Your task to perform on an android device: Open internet settings Image 0: 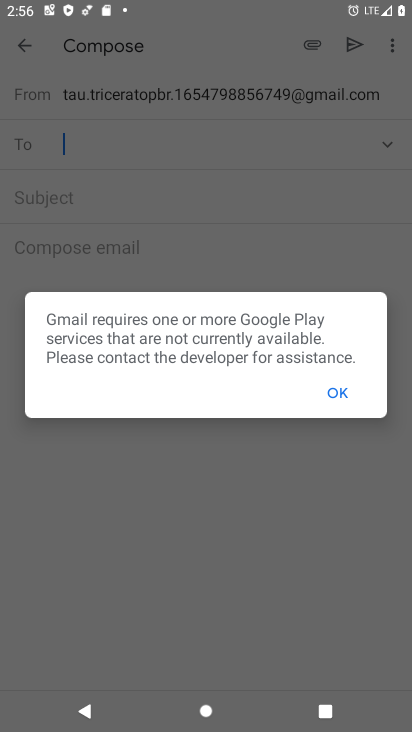
Step 0: click (341, 380)
Your task to perform on an android device: Open internet settings Image 1: 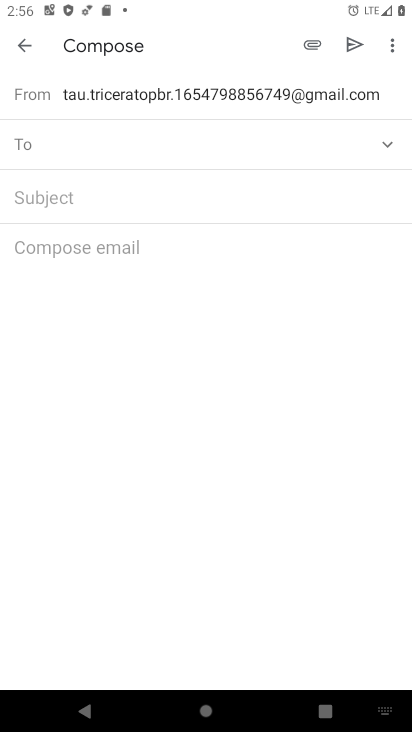
Step 1: press back button
Your task to perform on an android device: Open internet settings Image 2: 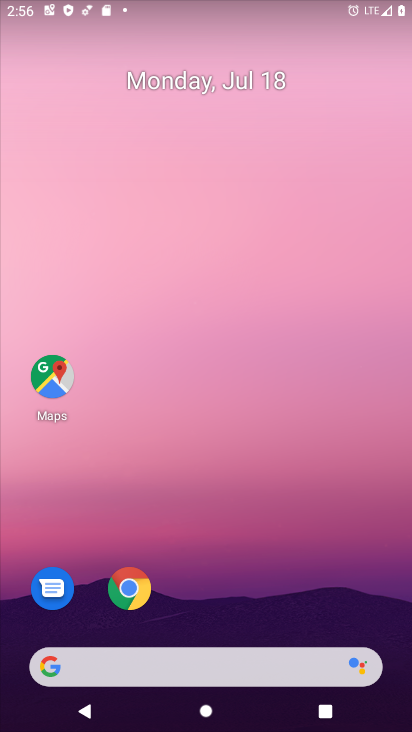
Step 2: drag from (253, 589) to (343, 101)
Your task to perform on an android device: Open internet settings Image 3: 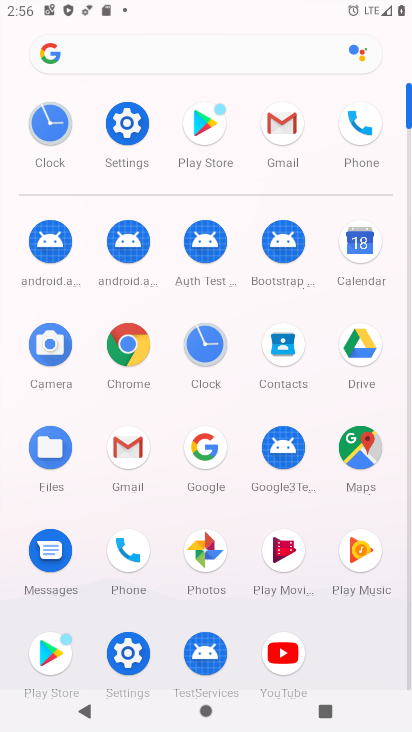
Step 3: click (127, 110)
Your task to perform on an android device: Open internet settings Image 4: 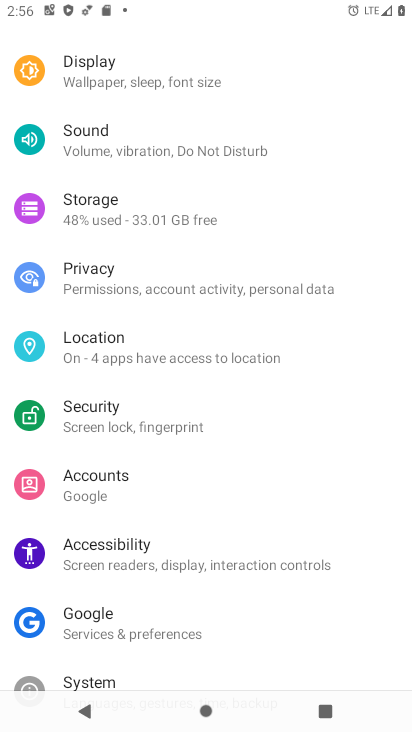
Step 4: drag from (180, 169) to (209, 714)
Your task to perform on an android device: Open internet settings Image 5: 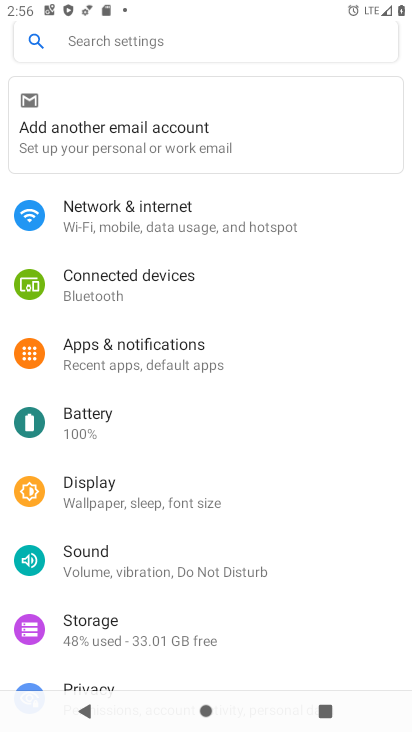
Step 5: click (136, 222)
Your task to perform on an android device: Open internet settings Image 6: 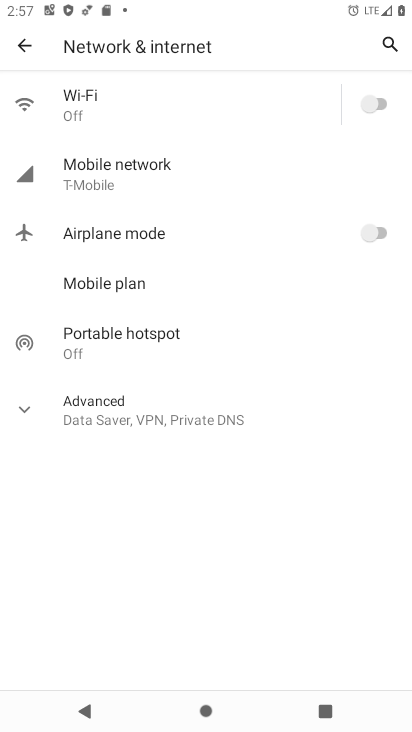
Step 6: task complete